Your task to perform on an android device: Open Google Chrome Image 0: 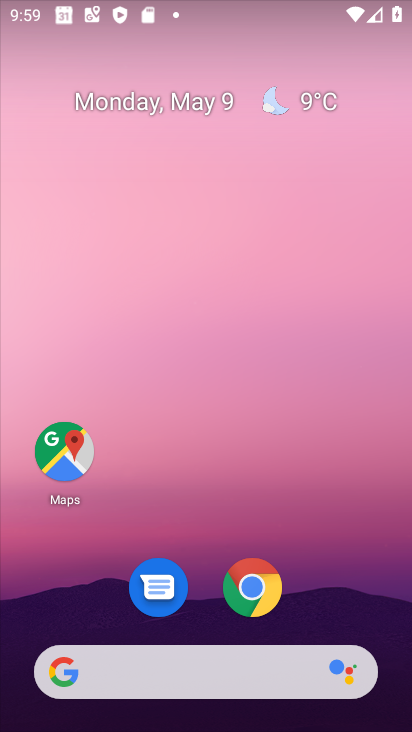
Step 0: drag from (346, 591) to (261, 0)
Your task to perform on an android device: Open Google Chrome Image 1: 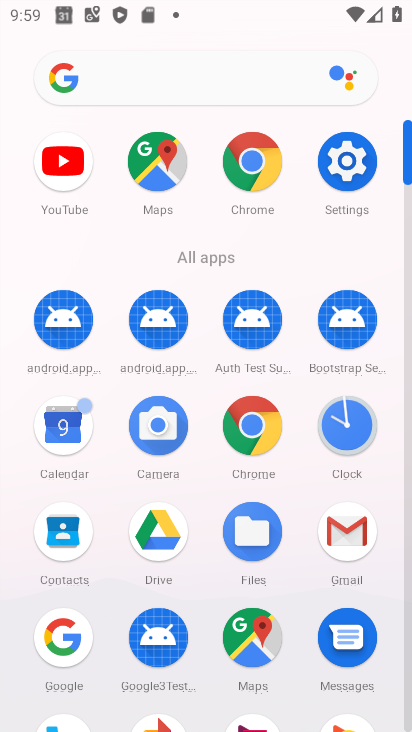
Step 1: click (265, 189)
Your task to perform on an android device: Open Google Chrome Image 2: 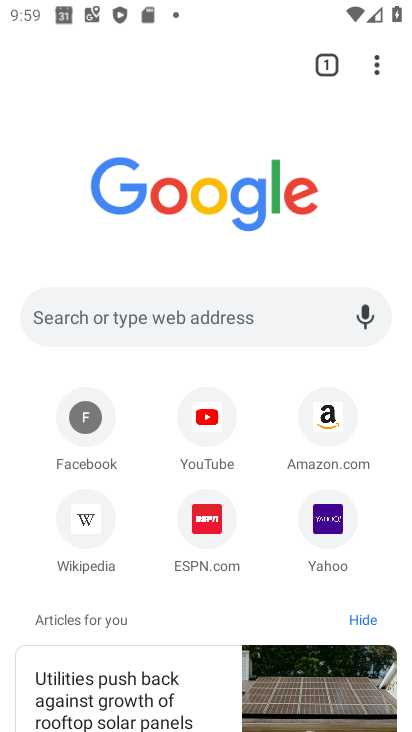
Step 2: task complete